Your task to perform on an android device: empty trash in the gmail app Image 0: 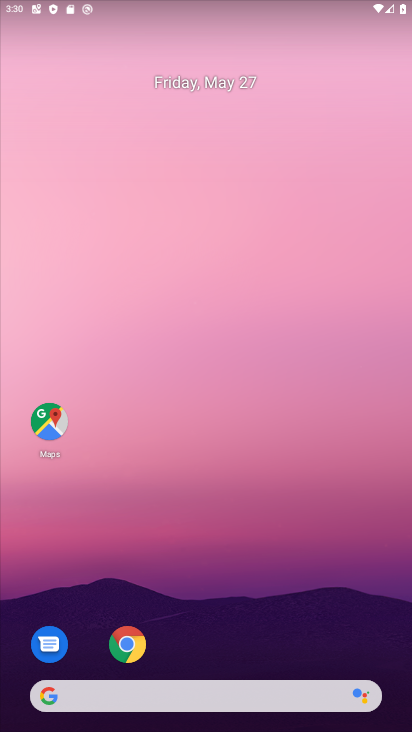
Step 0: drag from (299, 510) to (213, 8)
Your task to perform on an android device: empty trash in the gmail app Image 1: 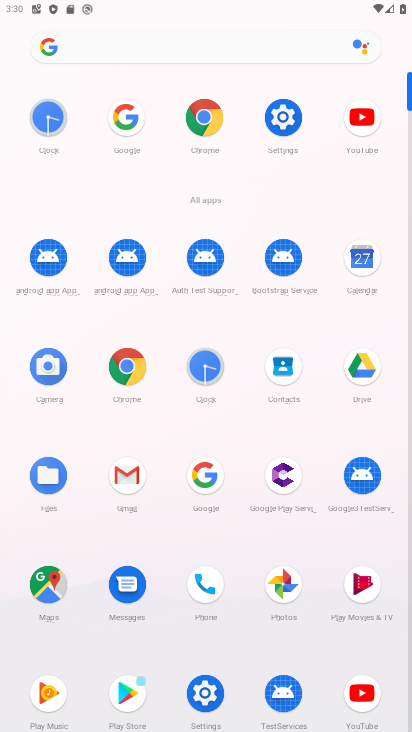
Step 1: click (136, 476)
Your task to perform on an android device: empty trash in the gmail app Image 2: 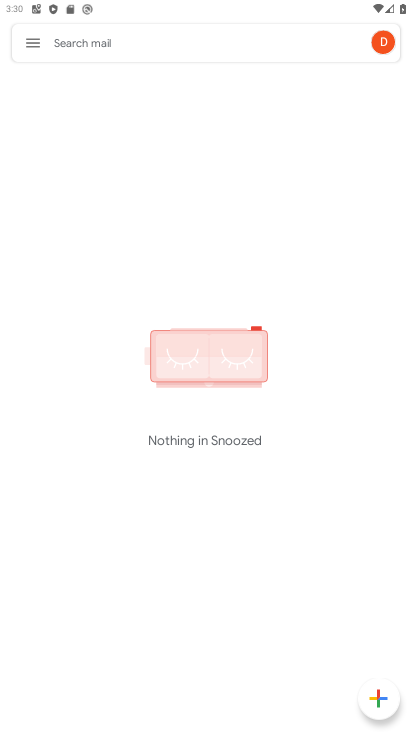
Step 2: click (24, 50)
Your task to perform on an android device: empty trash in the gmail app Image 3: 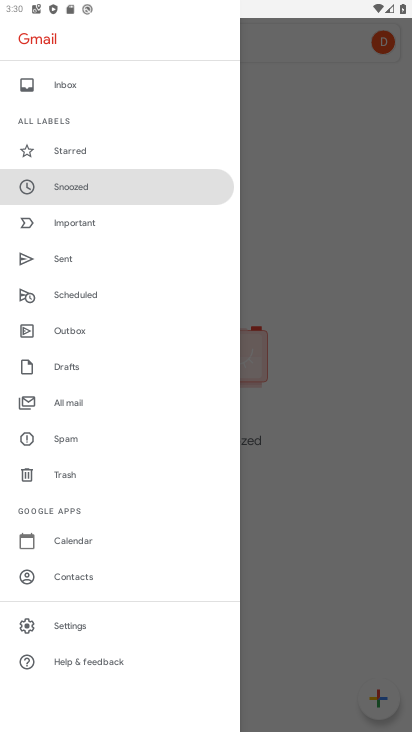
Step 3: click (85, 473)
Your task to perform on an android device: empty trash in the gmail app Image 4: 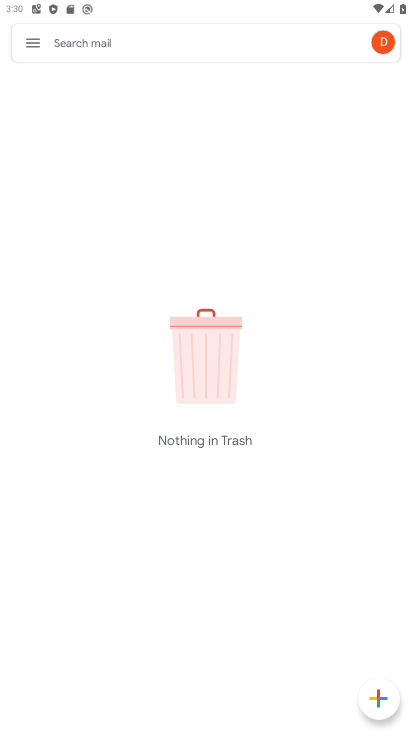
Step 4: task complete